Your task to perform on an android device: toggle translation in the chrome app Image 0: 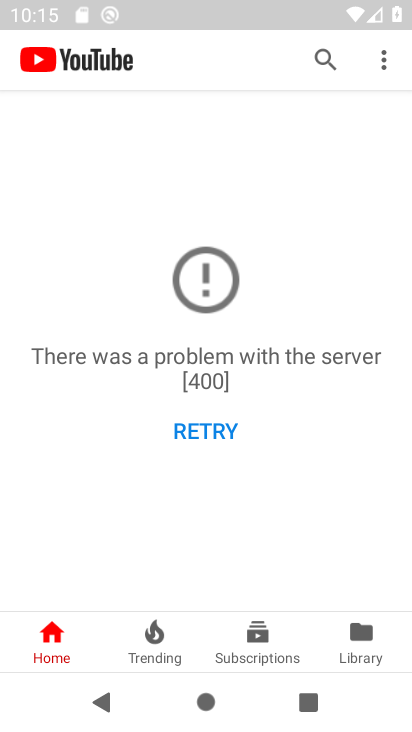
Step 0: press home button
Your task to perform on an android device: toggle translation in the chrome app Image 1: 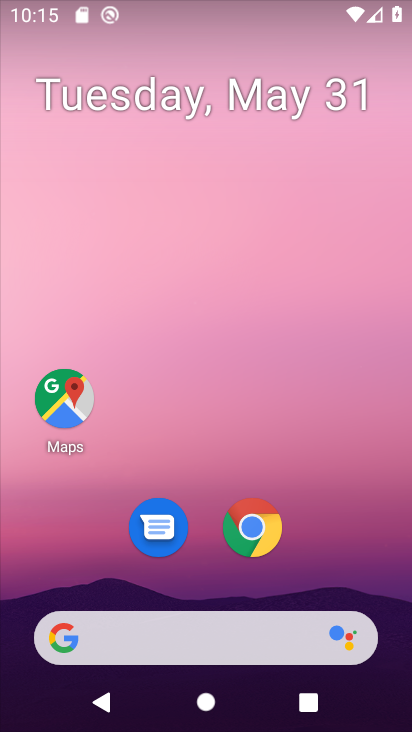
Step 1: click (261, 531)
Your task to perform on an android device: toggle translation in the chrome app Image 2: 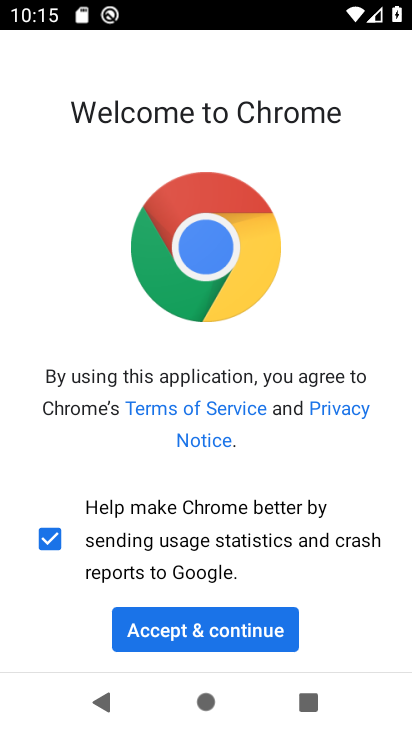
Step 2: click (230, 617)
Your task to perform on an android device: toggle translation in the chrome app Image 3: 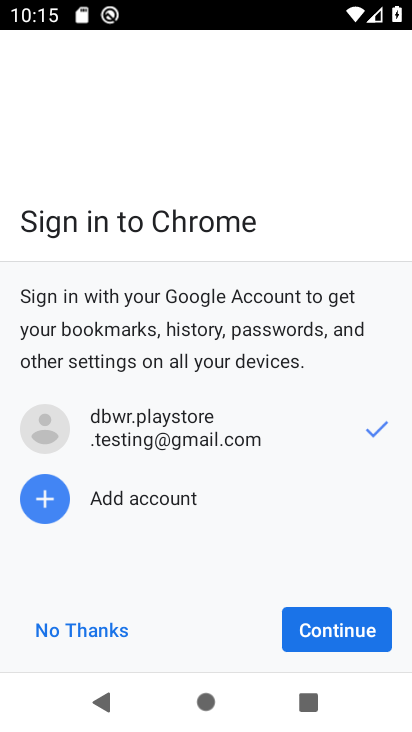
Step 3: click (365, 643)
Your task to perform on an android device: toggle translation in the chrome app Image 4: 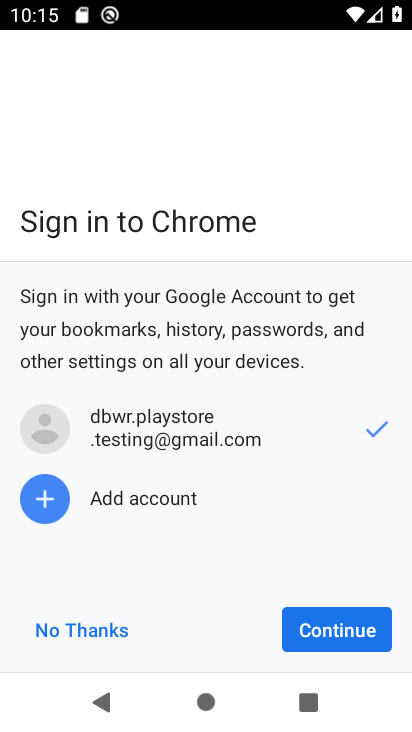
Step 4: click (365, 643)
Your task to perform on an android device: toggle translation in the chrome app Image 5: 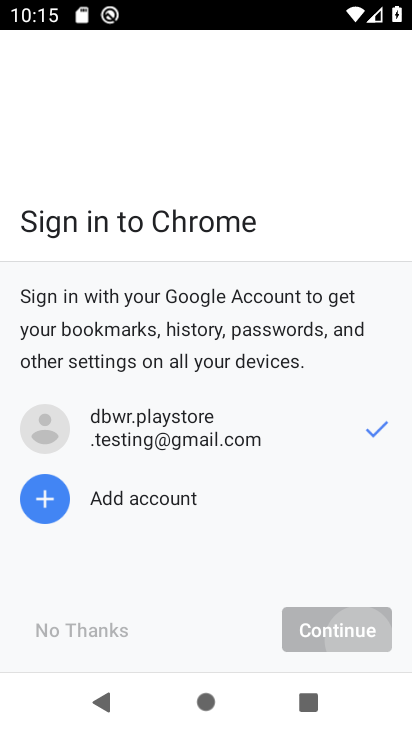
Step 5: click (366, 639)
Your task to perform on an android device: toggle translation in the chrome app Image 6: 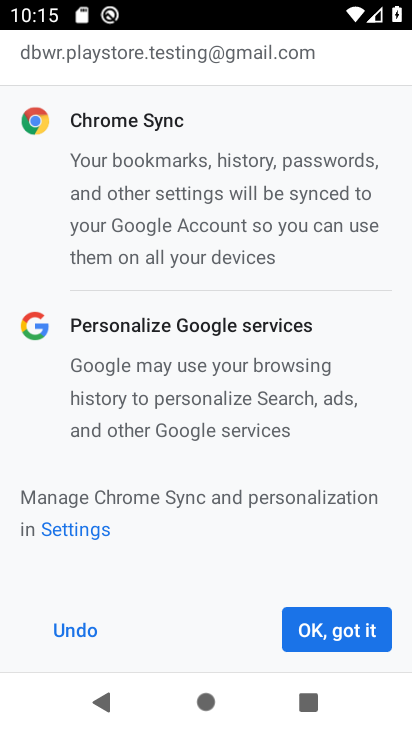
Step 6: click (367, 639)
Your task to perform on an android device: toggle translation in the chrome app Image 7: 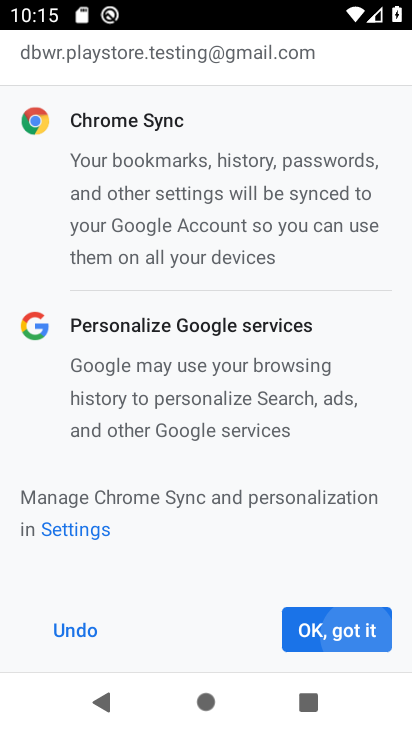
Step 7: click (367, 639)
Your task to perform on an android device: toggle translation in the chrome app Image 8: 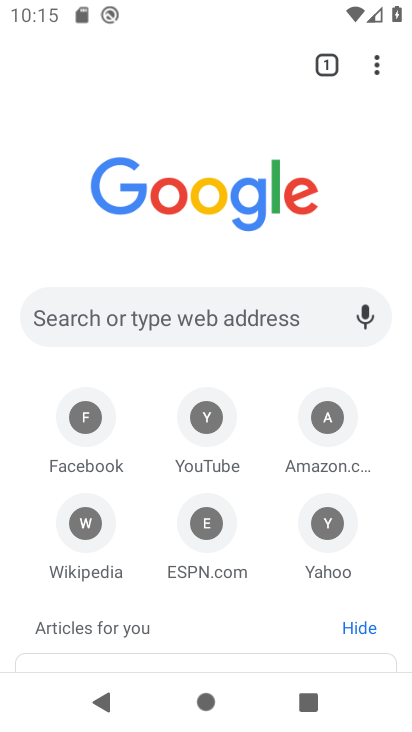
Step 8: click (380, 70)
Your task to perform on an android device: toggle translation in the chrome app Image 9: 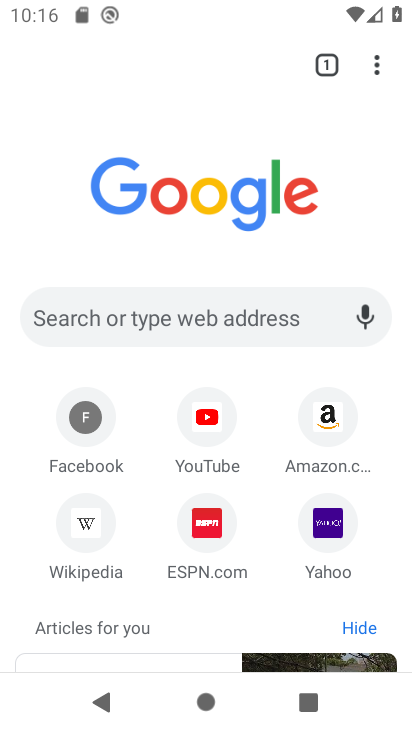
Step 9: click (371, 66)
Your task to perform on an android device: toggle translation in the chrome app Image 10: 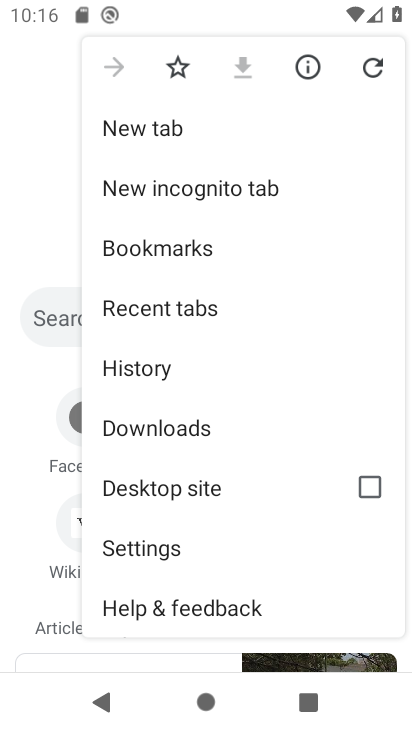
Step 10: click (220, 552)
Your task to perform on an android device: toggle translation in the chrome app Image 11: 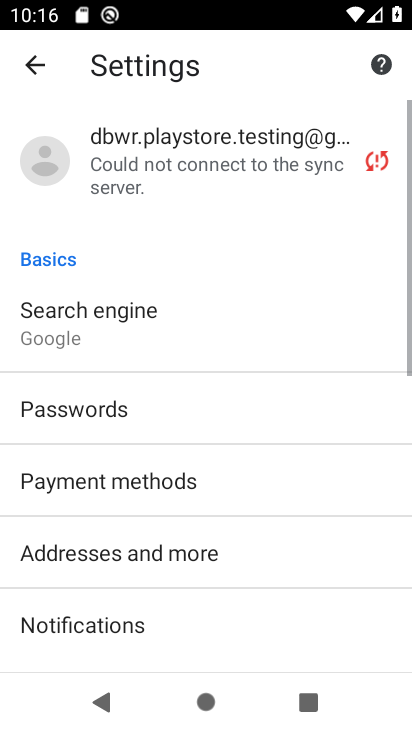
Step 11: drag from (191, 590) to (265, 162)
Your task to perform on an android device: toggle translation in the chrome app Image 12: 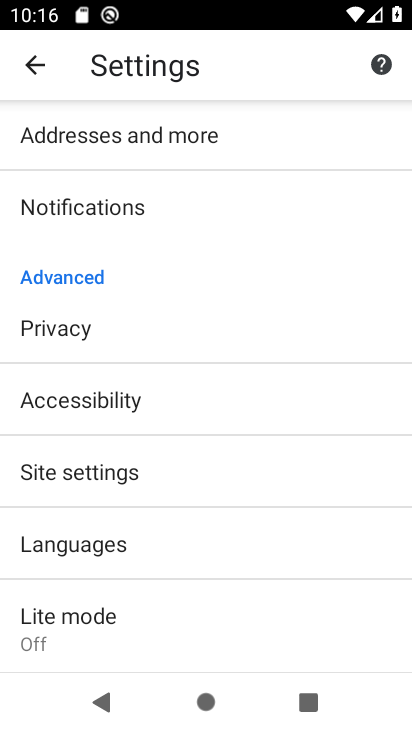
Step 12: click (136, 538)
Your task to perform on an android device: toggle translation in the chrome app Image 13: 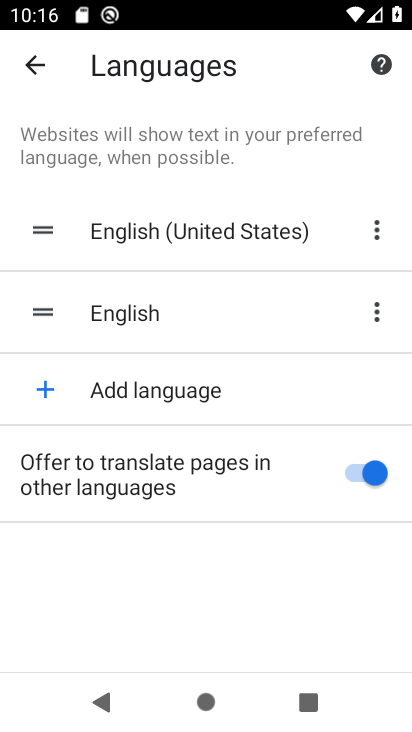
Step 13: click (375, 467)
Your task to perform on an android device: toggle translation in the chrome app Image 14: 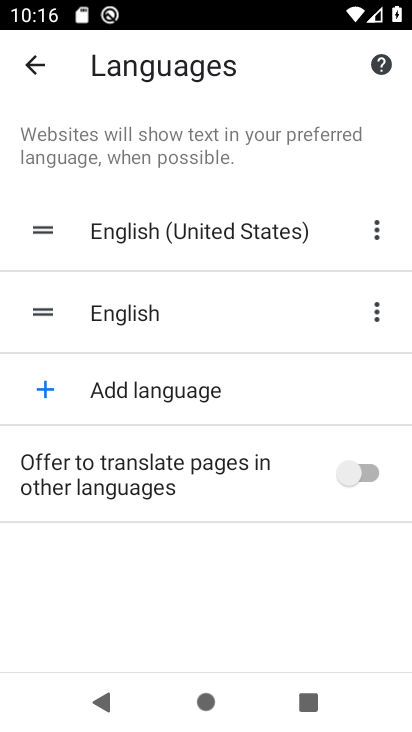
Step 14: task complete